Your task to perform on an android device: Is it going to rain tomorrow? Image 0: 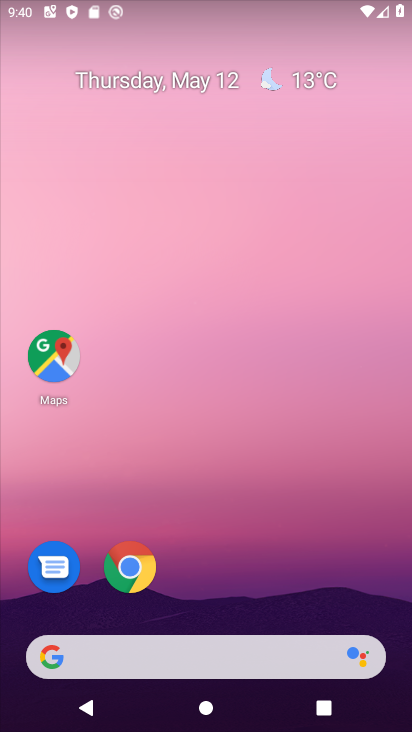
Step 0: click (239, 86)
Your task to perform on an android device: Is it going to rain tomorrow? Image 1: 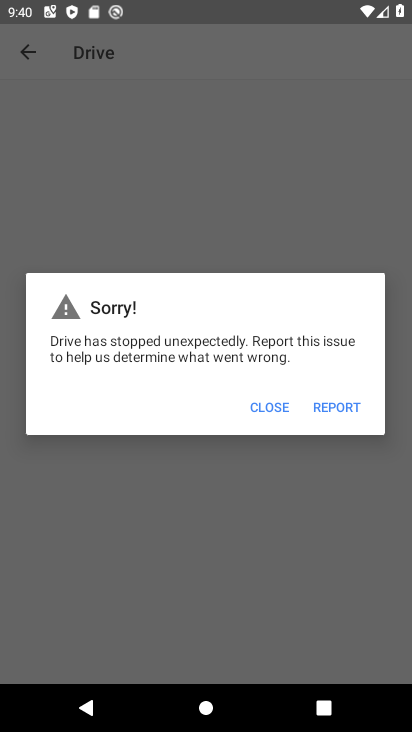
Step 1: press home button
Your task to perform on an android device: Is it going to rain tomorrow? Image 2: 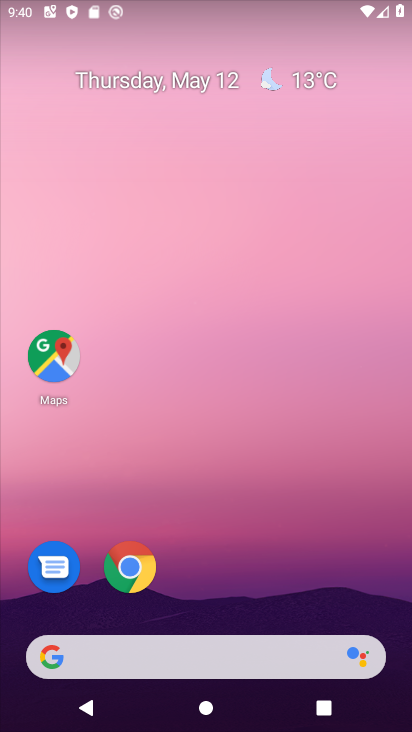
Step 2: click (155, 665)
Your task to perform on an android device: Is it going to rain tomorrow? Image 3: 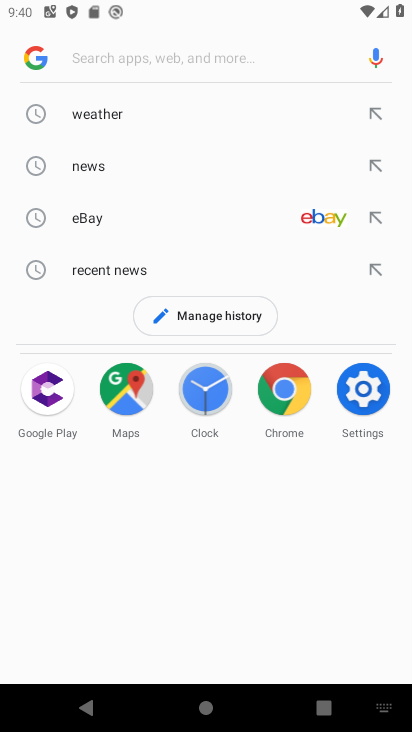
Step 3: type "is it going to rain tomorrow"
Your task to perform on an android device: Is it going to rain tomorrow? Image 4: 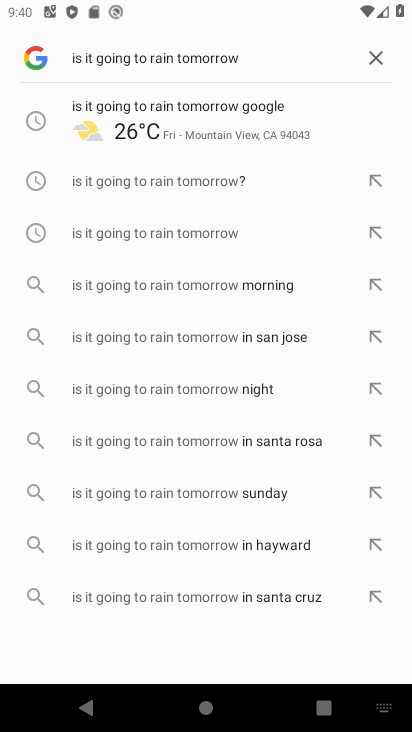
Step 4: click (182, 124)
Your task to perform on an android device: Is it going to rain tomorrow? Image 5: 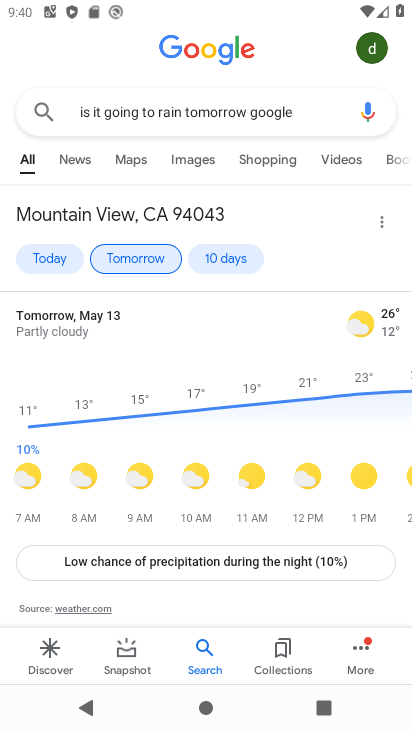
Step 5: task complete